Your task to perform on an android device: Go to Google Image 0: 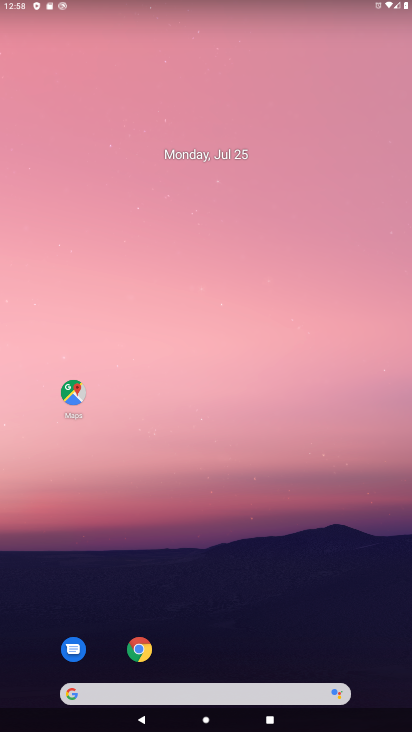
Step 0: press home button
Your task to perform on an android device: Go to Google Image 1: 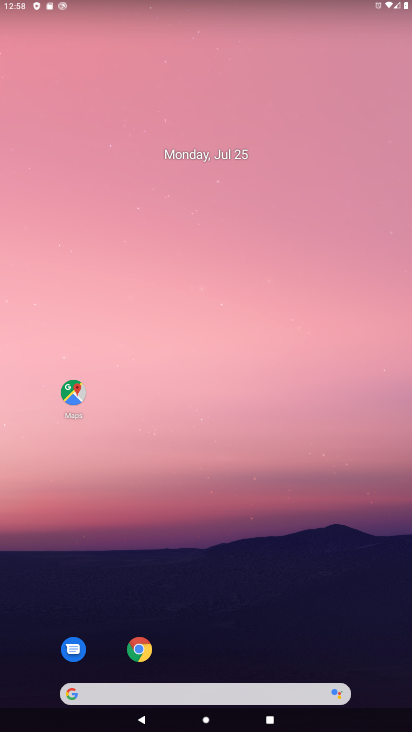
Step 1: drag from (293, 620) to (266, 128)
Your task to perform on an android device: Go to Google Image 2: 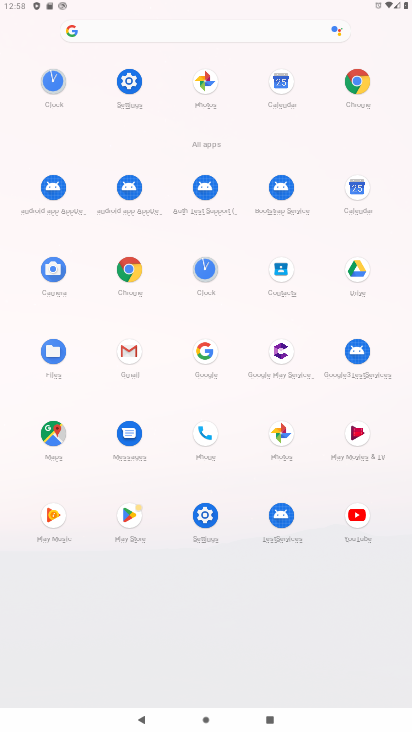
Step 2: click (204, 353)
Your task to perform on an android device: Go to Google Image 3: 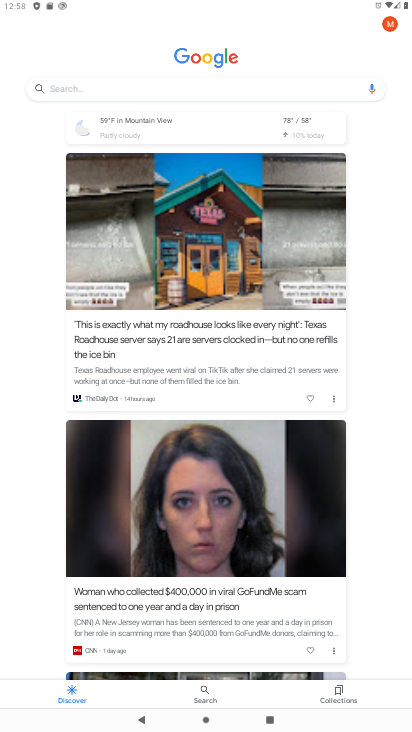
Step 3: task complete